Your task to perform on an android device: Open location settings Image 0: 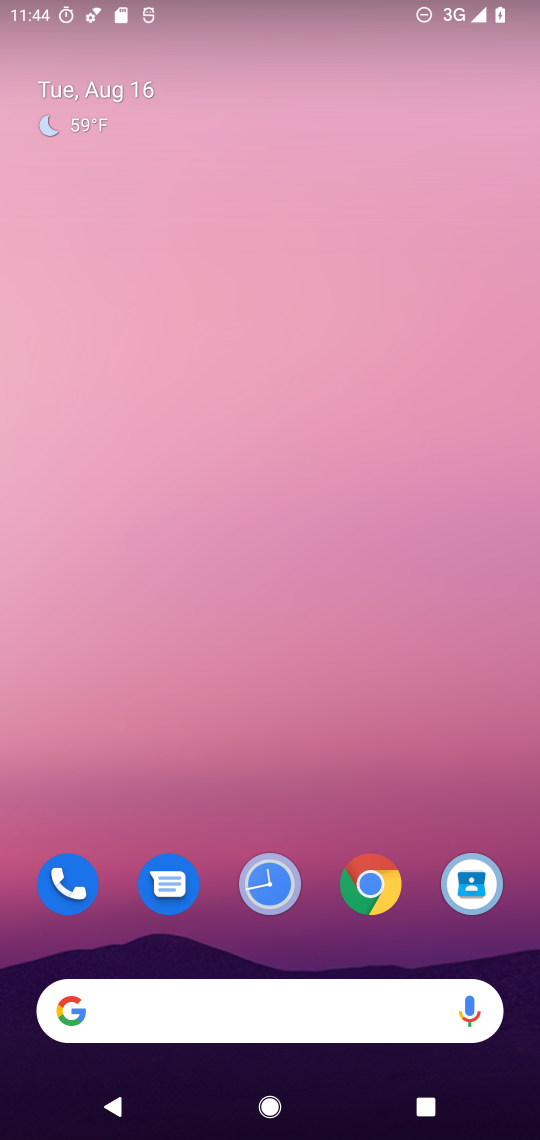
Step 0: drag from (186, 918) to (522, 536)
Your task to perform on an android device: Open location settings Image 1: 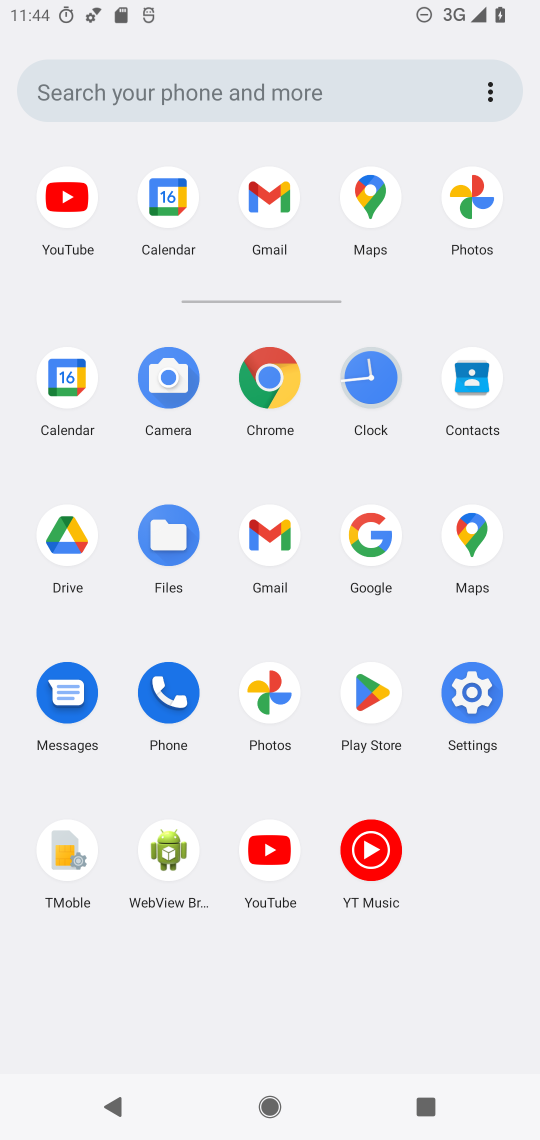
Step 1: click (454, 695)
Your task to perform on an android device: Open location settings Image 2: 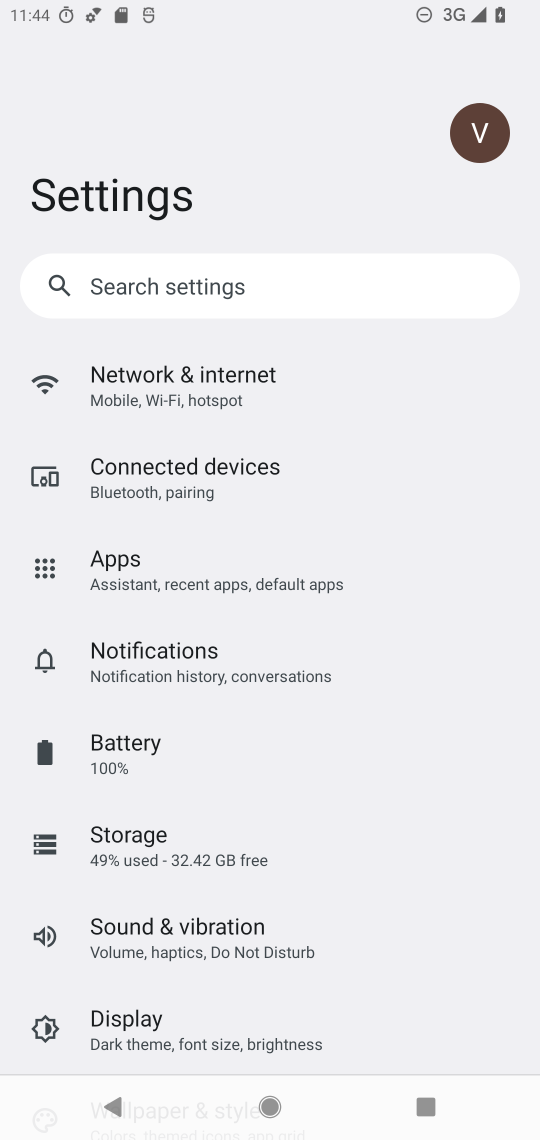
Step 2: drag from (237, 713) to (217, 145)
Your task to perform on an android device: Open location settings Image 3: 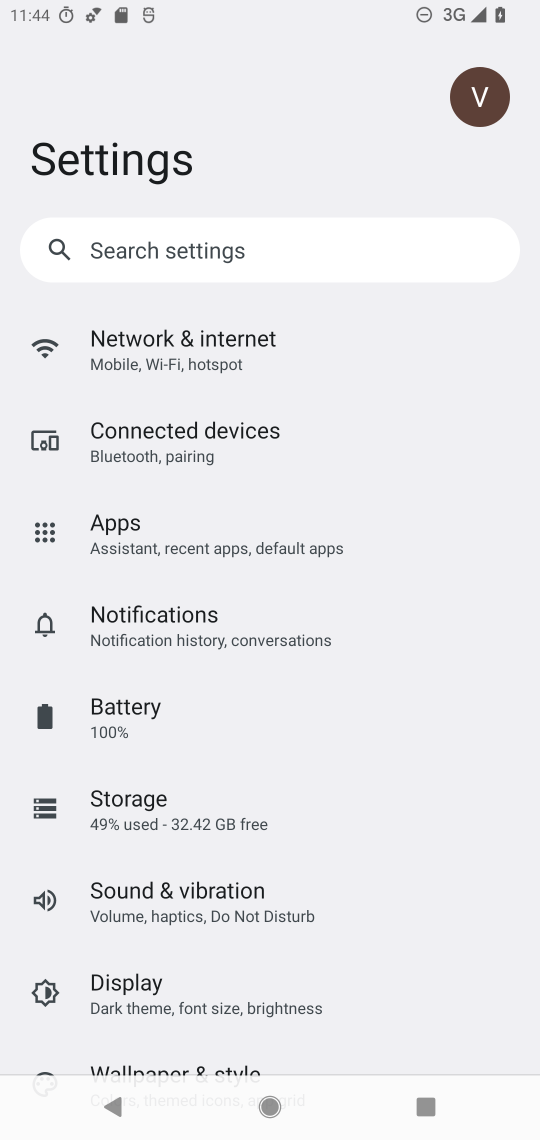
Step 3: drag from (200, 1044) to (222, 408)
Your task to perform on an android device: Open location settings Image 4: 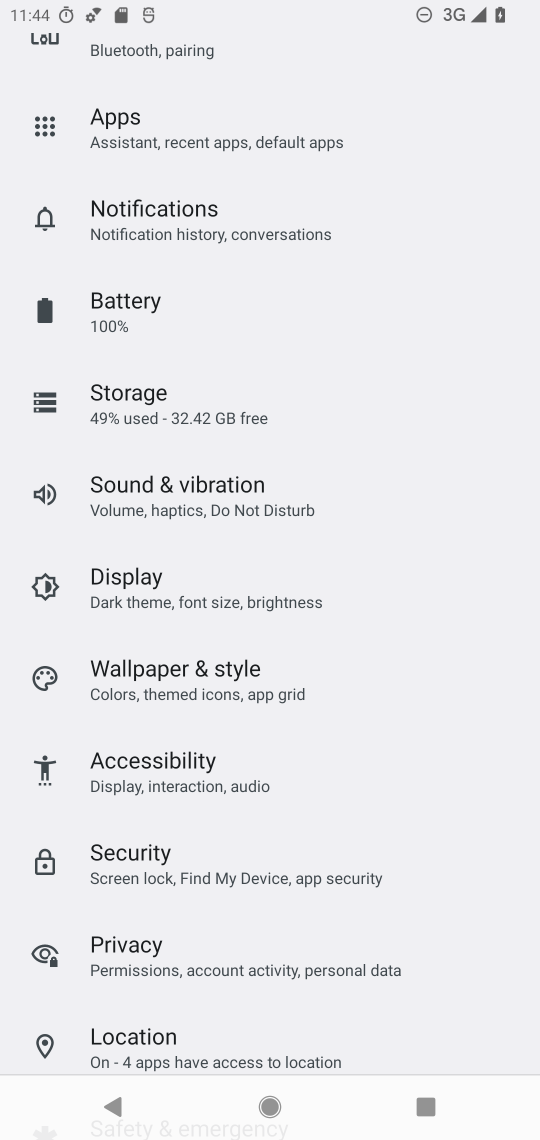
Step 4: click (132, 1031)
Your task to perform on an android device: Open location settings Image 5: 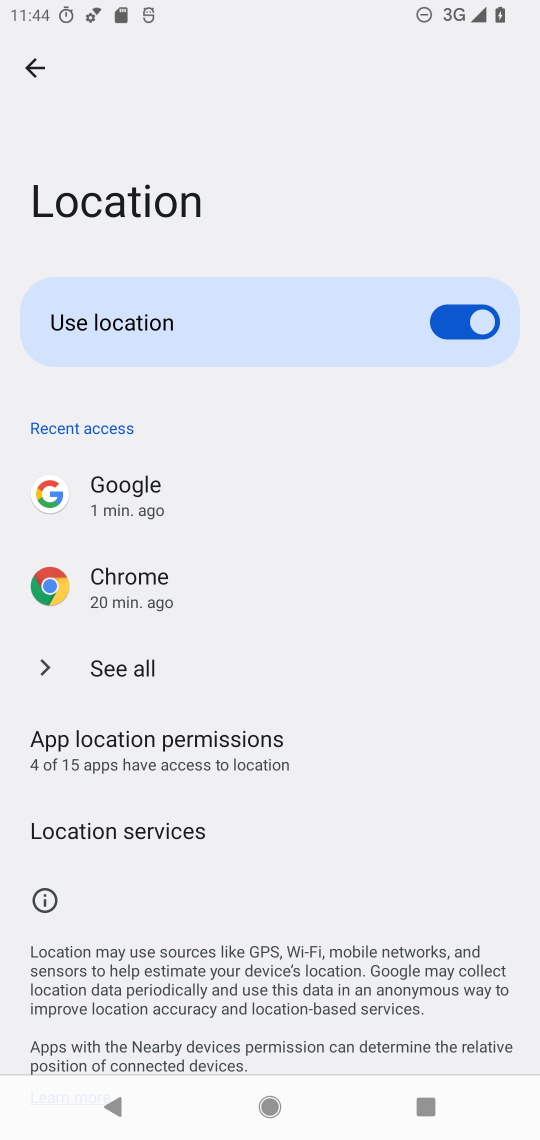
Step 5: task complete